Your task to perform on an android device: Search for a new foundation (skincare) product Image 0: 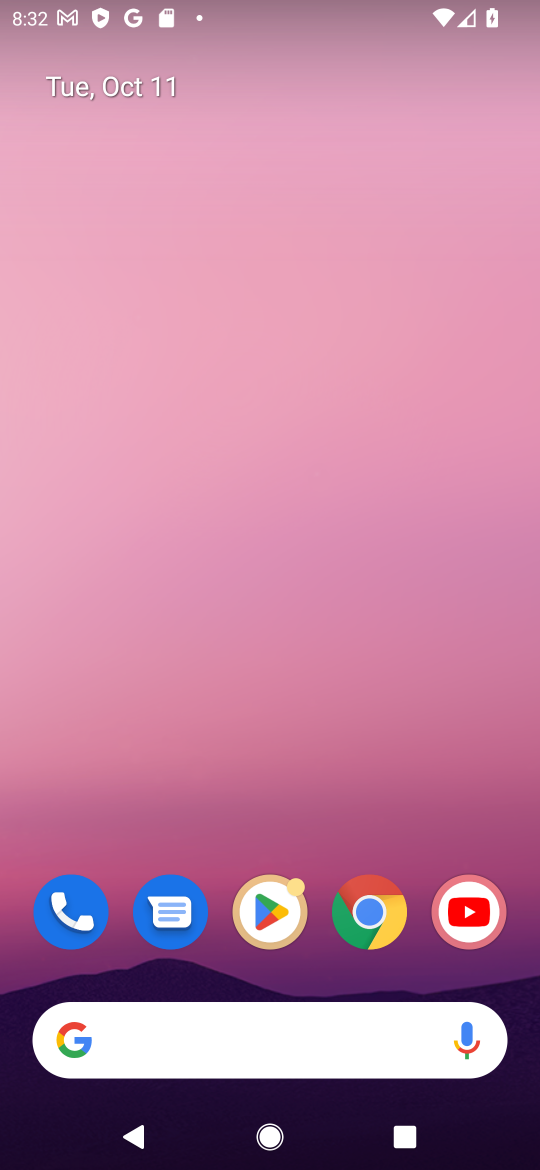
Step 0: click (364, 913)
Your task to perform on an android device: Search for a new foundation (skincare) product Image 1: 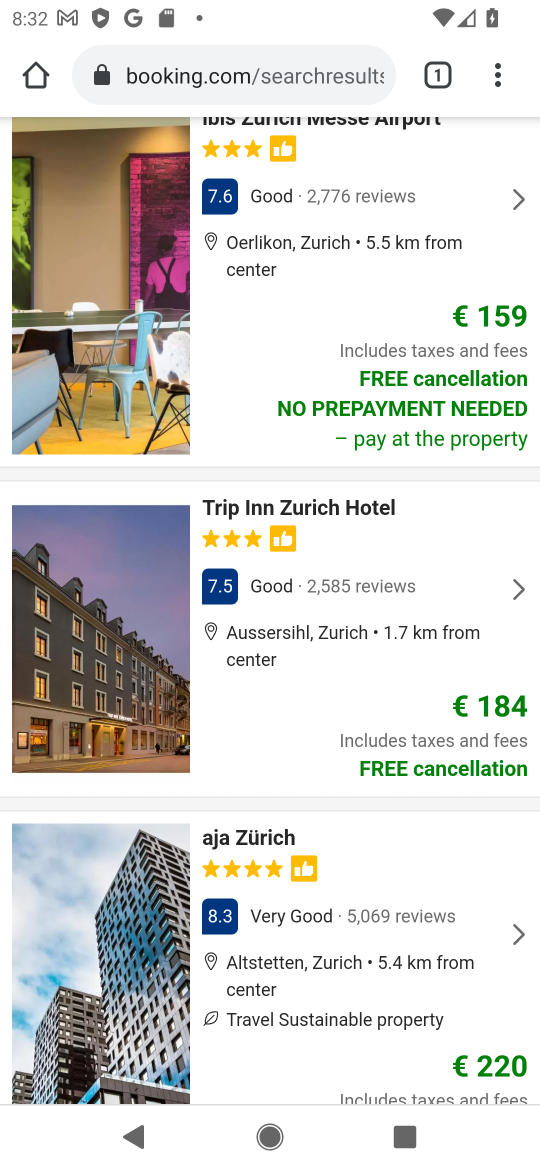
Step 1: click (221, 50)
Your task to perform on an android device: Search for a new foundation (skincare) product Image 2: 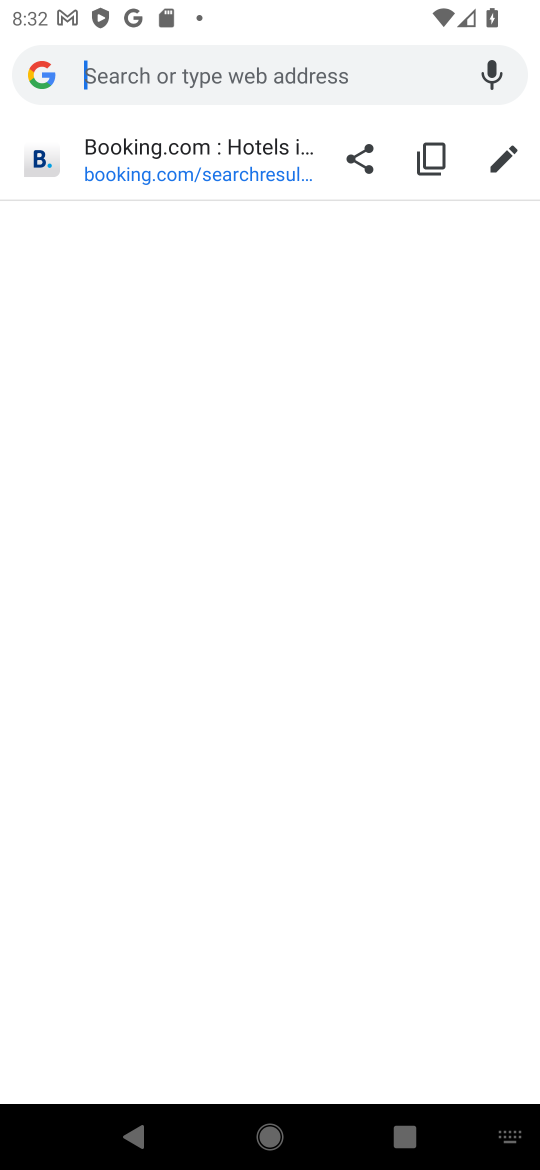
Step 2: type "new foundation product"
Your task to perform on an android device: Search for a new foundation (skincare) product Image 3: 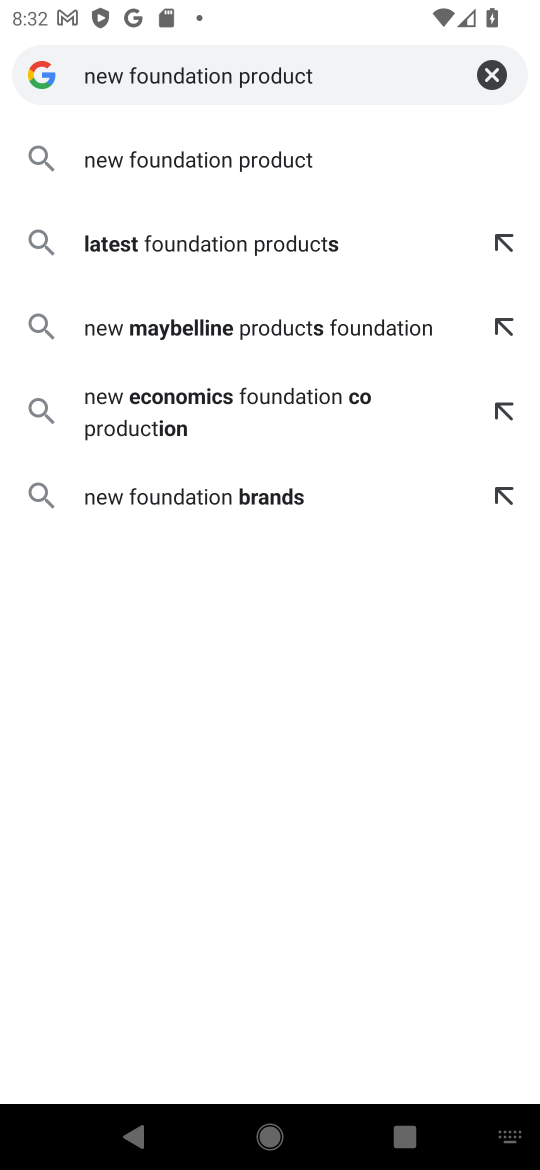
Step 3: click (144, 154)
Your task to perform on an android device: Search for a new foundation (skincare) product Image 4: 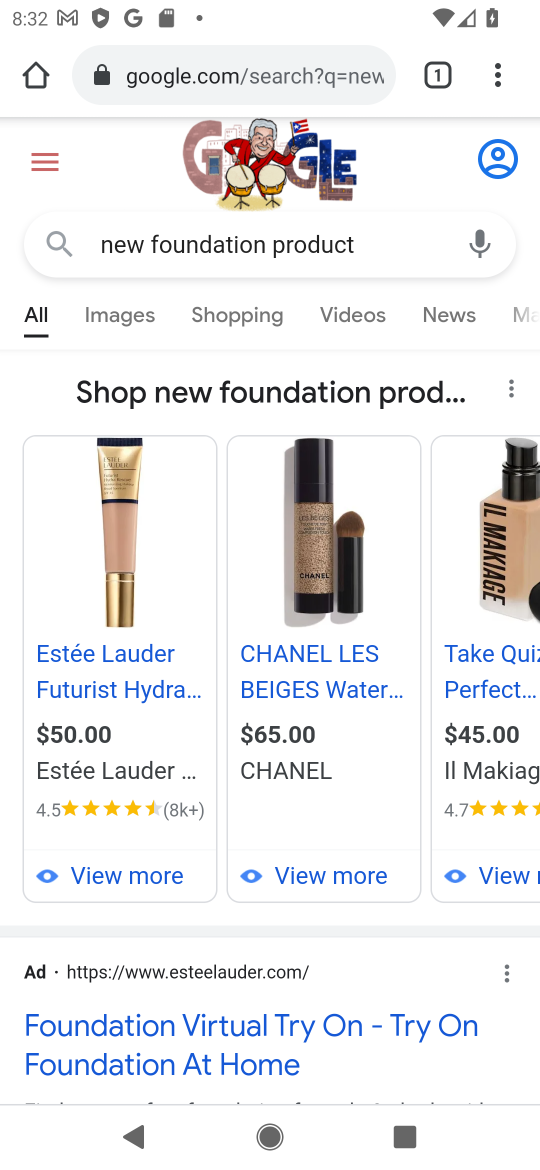
Step 4: drag from (226, 925) to (231, 284)
Your task to perform on an android device: Search for a new foundation (skincare) product Image 5: 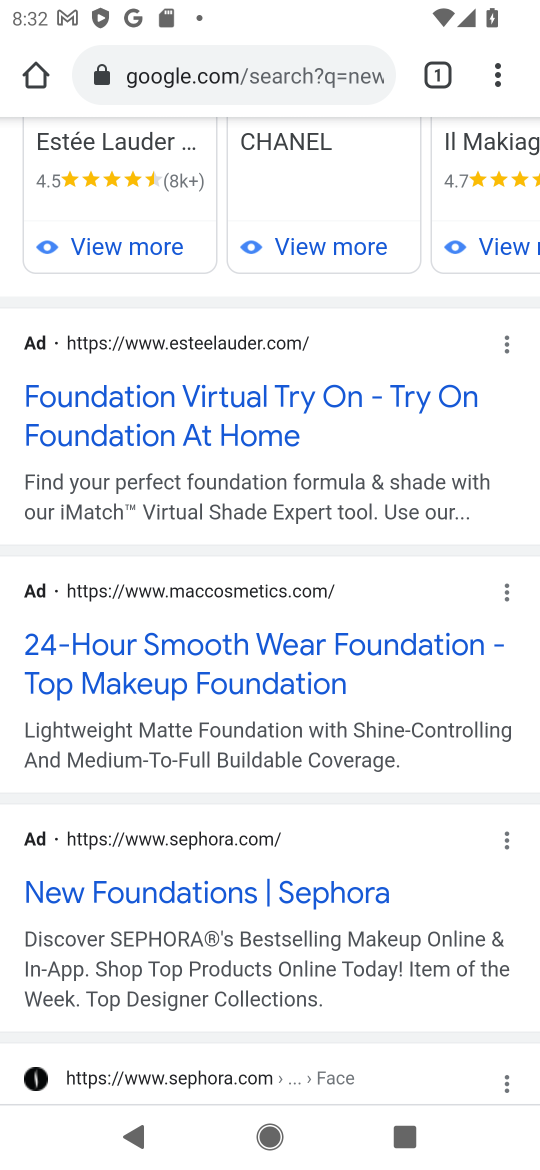
Step 5: drag from (268, 793) to (277, 350)
Your task to perform on an android device: Search for a new foundation (skincare) product Image 6: 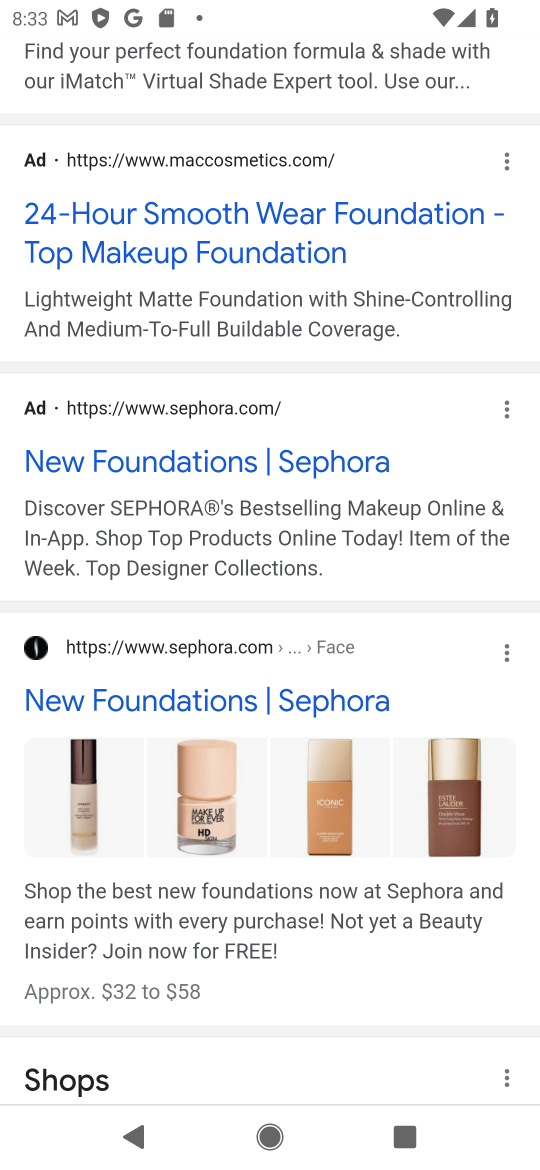
Step 6: click (128, 453)
Your task to perform on an android device: Search for a new foundation (skincare) product Image 7: 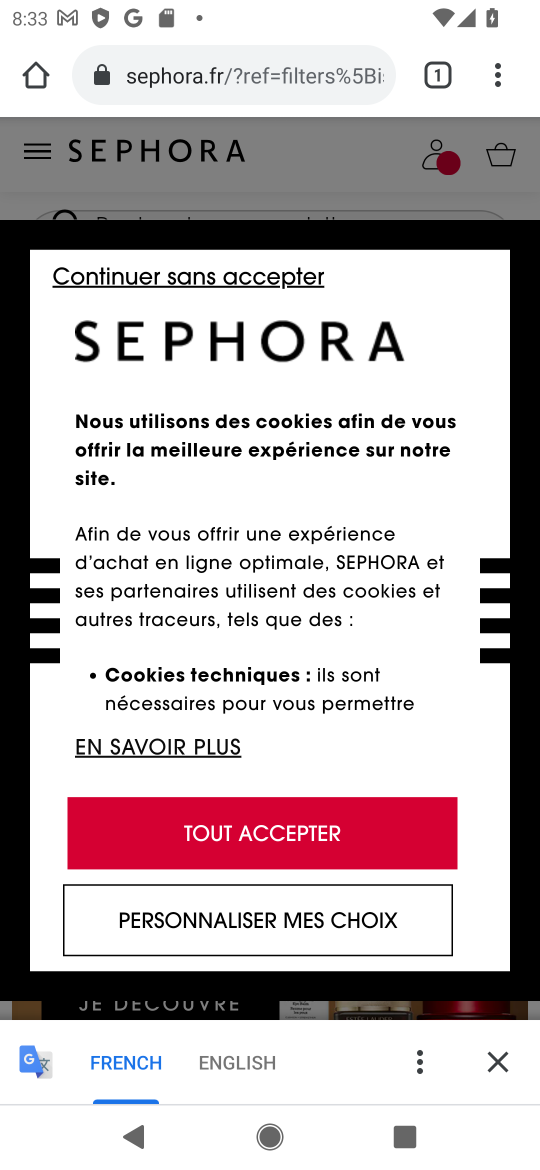
Step 7: click (250, 830)
Your task to perform on an android device: Search for a new foundation (skincare) product Image 8: 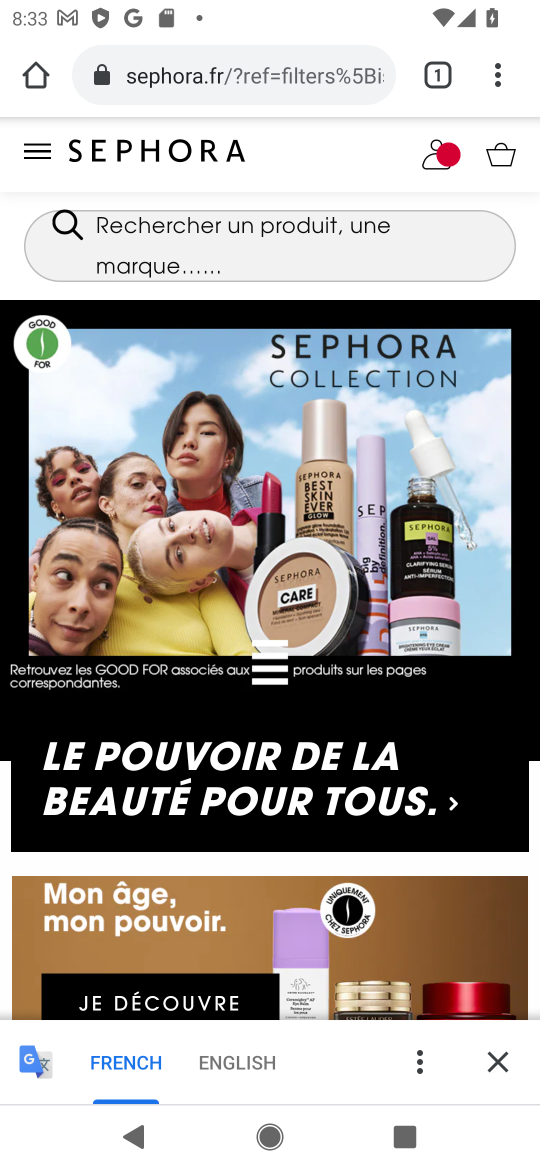
Step 8: drag from (279, 830) to (264, 336)
Your task to perform on an android device: Search for a new foundation (skincare) product Image 9: 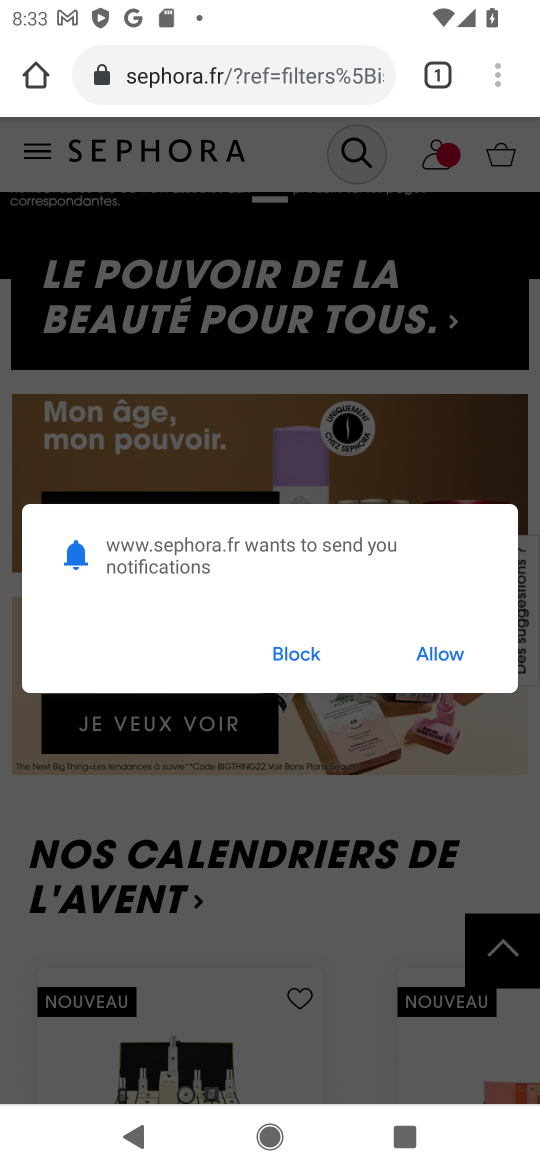
Step 9: click (287, 654)
Your task to perform on an android device: Search for a new foundation (skincare) product Image 10: 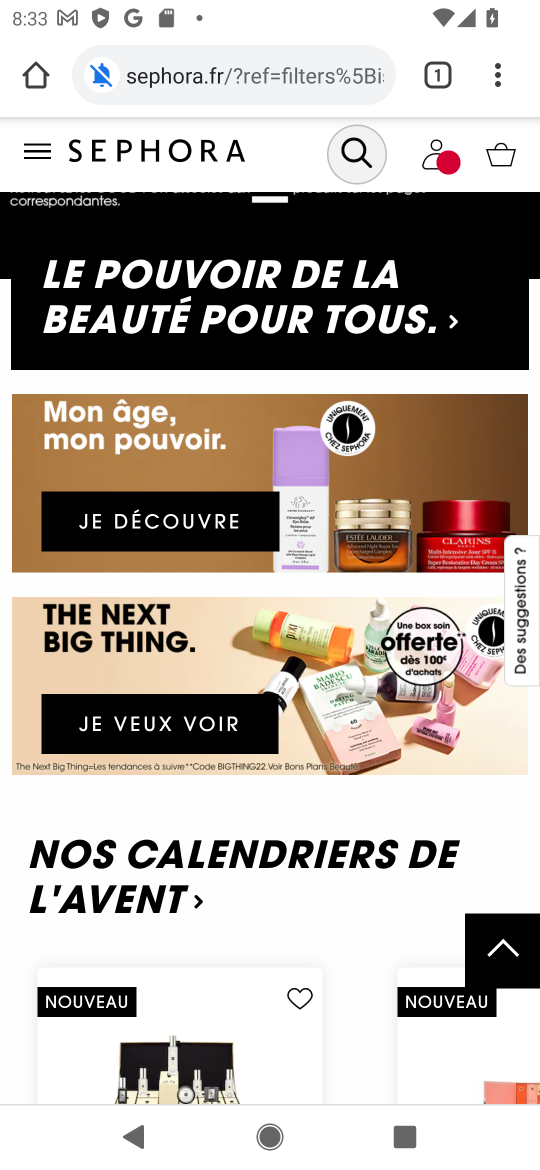
Step 10: task complete